Your task to perform on an android device: turn notification dots on Image 0: 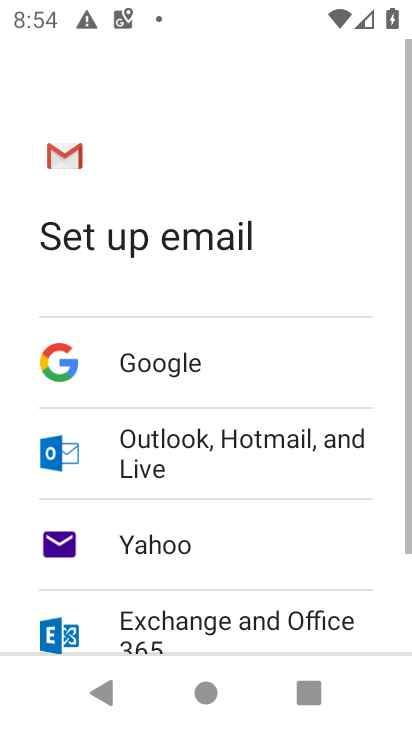
Step 0: press home button
Your task to perform on an android device: turn notification dots on Image 1: 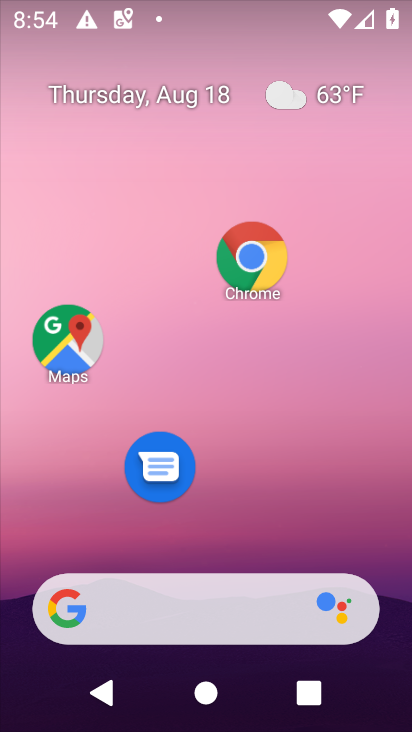
Step 1: task complete